Your task to perform on an android device: Go to internet settings Image 0: 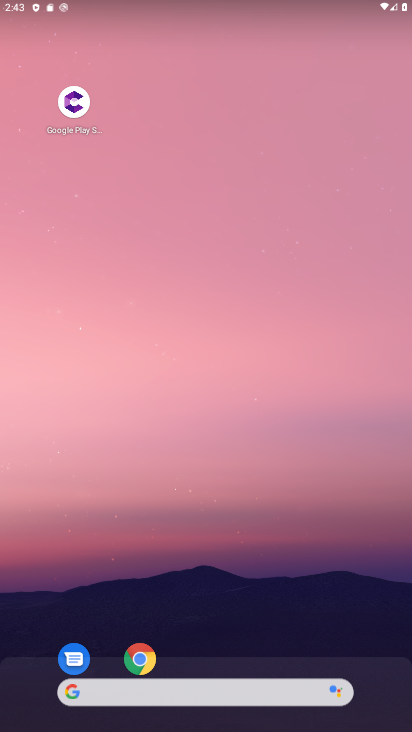
Step 0: drag from (252, 650) to (229, 182)
Your task to perform on an android device: Go to internet settings Image 1: 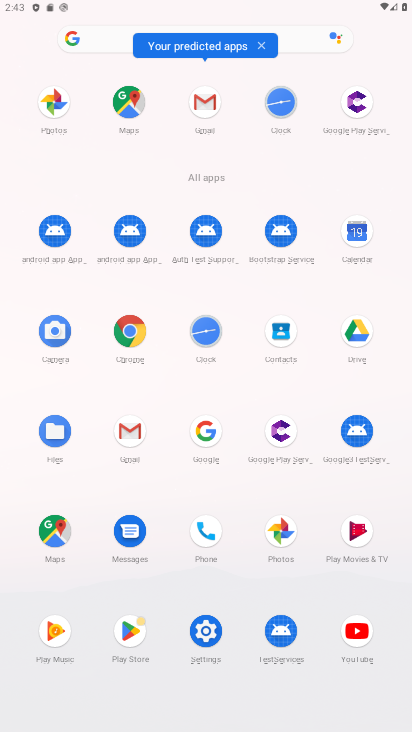
Step 1: click (196, 636)
Your task to perform on an android device: Go to internet settings Image 2: 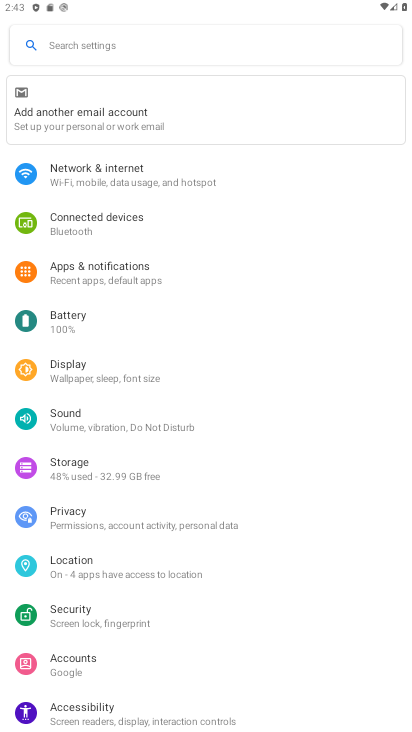
Step 2: click (107, 173)
Your task to perform on an android device: Go to internet settings Image 3: 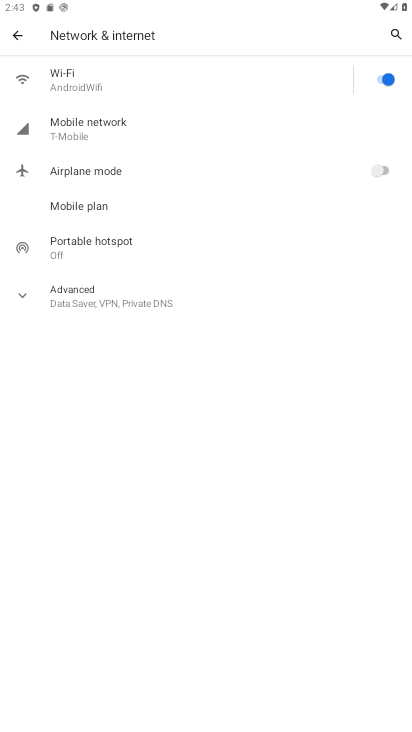
Step 3: click (94, 121)
Your task to perform on an android device: Go to internet settings Image 4: 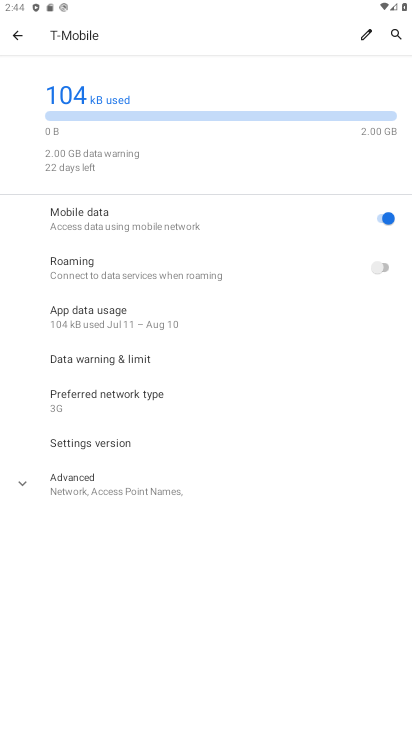
Step 4: task complete